Your task to perform on an android device: Nike Air Max 2020 shoes on Nike.com Image 0: 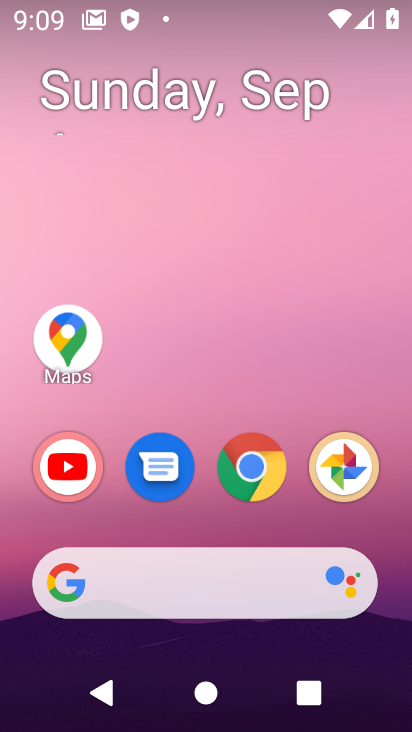
Step 0: click (243, 471)
Your task to perform on an android device: Nike Air Max 2020 shoes on Nike.com Image 1: 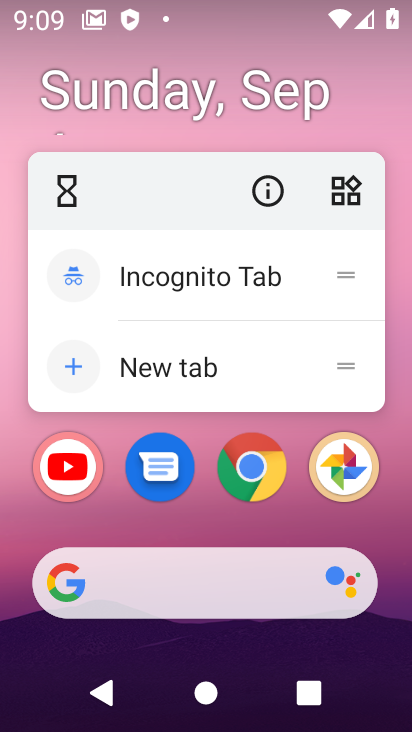
Step 1: click (260, 478)
Your task to perform on an android device: Nike Air Max 2020 shoes on Nike.com Image 2: 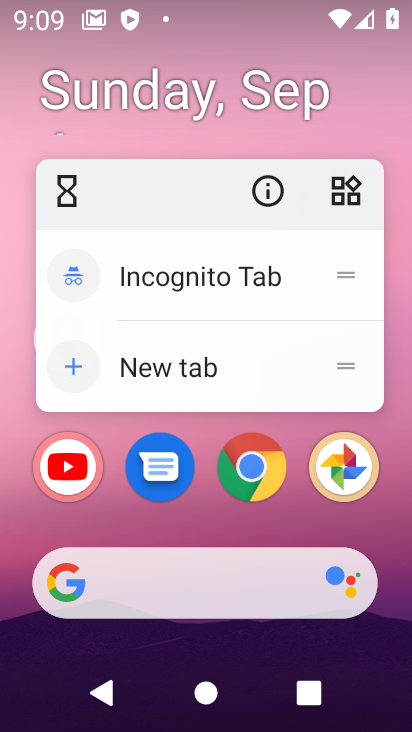
Step 2: click (260, 478)
Your task to perform on an android device: Nike Air Max 2020 shoes on Nike.com Image 3: 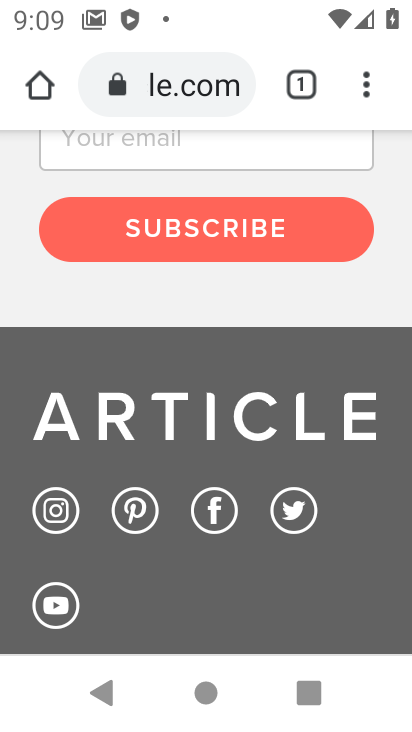
Step 3: click (207, 96)
Your task to perform on an android device: Nike Air Max 2020 shoes on Nike.com Image 4: 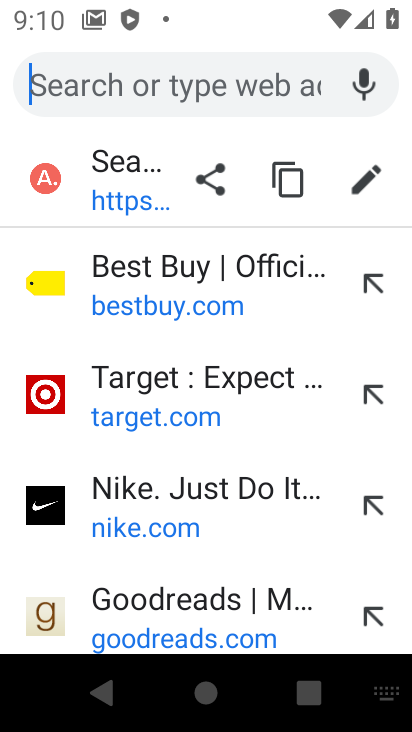
Step 4: type "nike.com"
Your task to perform on an android device: Nike Air Max 2020 shoes on Nike.com Image 5: 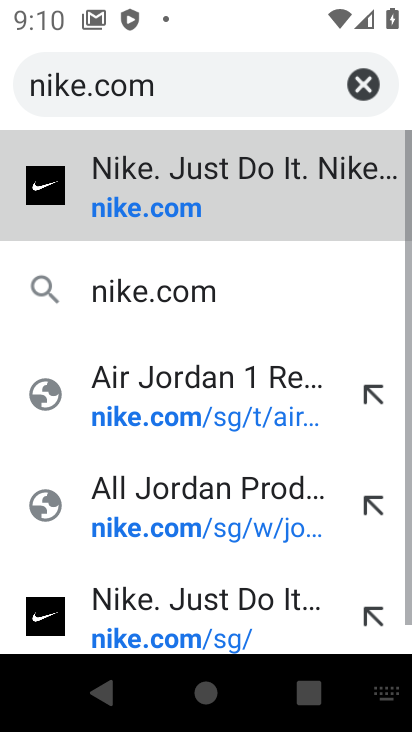
Step 5: type ""
Your task to perform on an android device: Nike Air Max 2020 shoes on Nike.com Image 6: 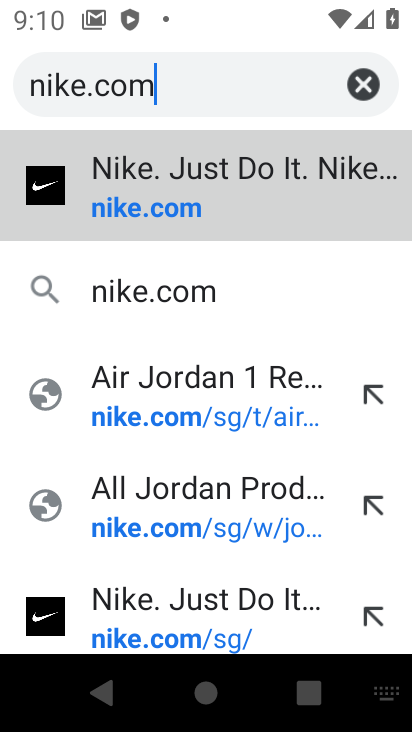
Step 6: click (255, 196)
Your task to perform on an android device: Nike Air Max 2020 shoes on Nike.com Image 7: 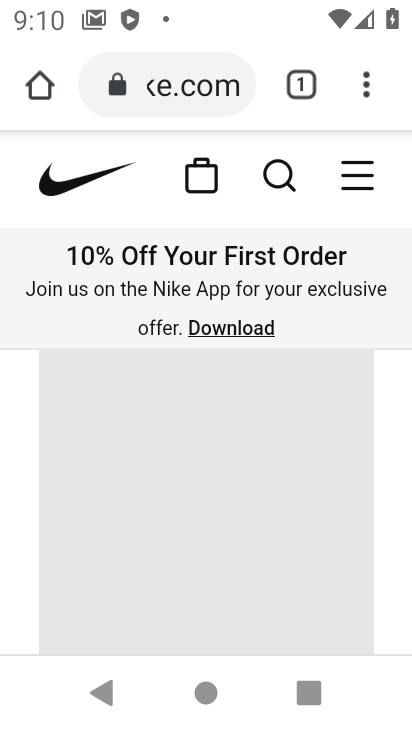
Step 7: click (265, 180)
Your task to perform on an android device: Nike Air Max 2020 shoes on Nike.com Image 8: 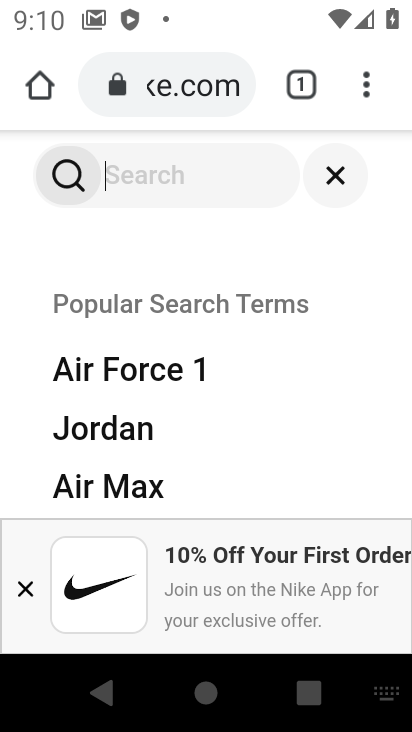
Step 8: click (154, 497)
Your task to perform on an android device: Nike Air Max 2020 shoes on Nike.com Image 9: 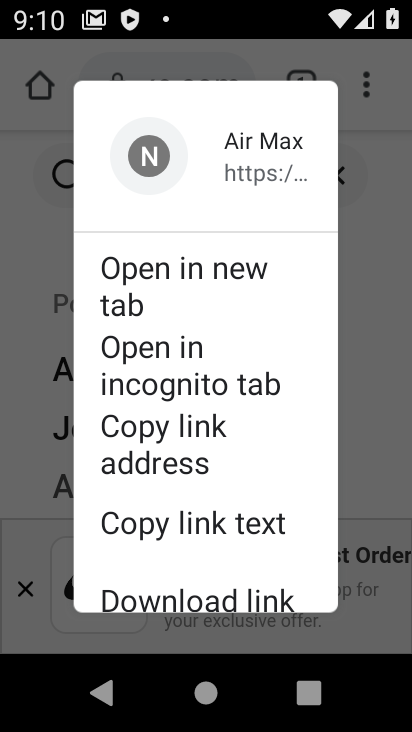
Step 9: click (391, 327)
Your task to perform on an android device: Nike Air Max 2020 shoes on Nike.com Image 10: 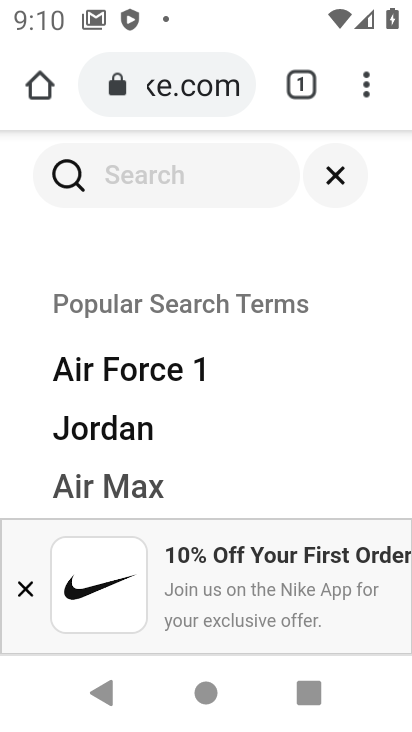
Step 10: click (20, 584)
Your task to perform on an android device: Nike Air Max 2020 shoes on Nike.com Image 11: 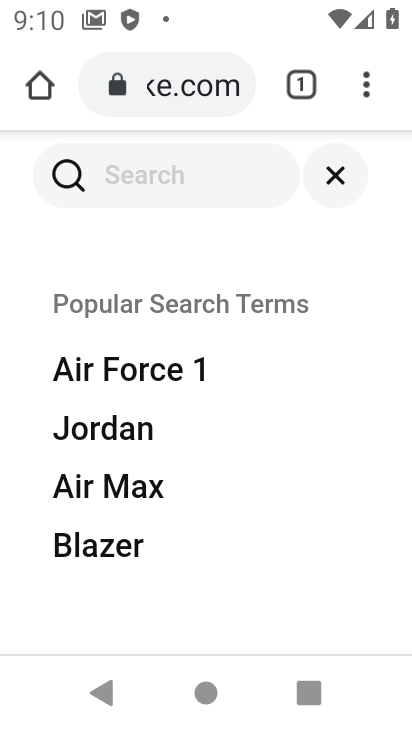
Step 11: drag from (323, 492) to (370, 175)
Your task to perform on an android device: Nike Air Max 2020 shoes on Nike.com Image 12: 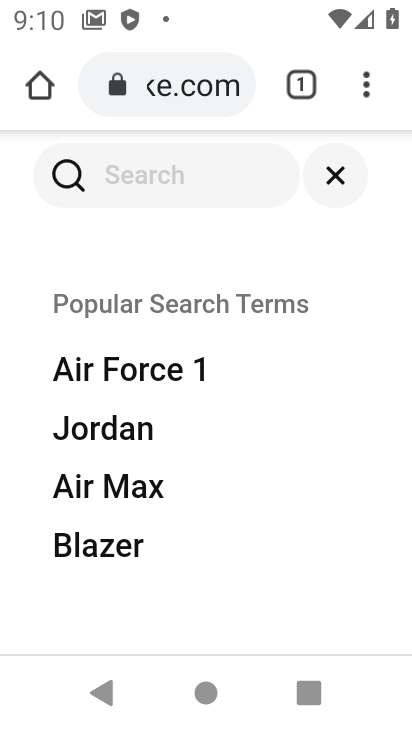
Step 12: drag from (332, 556) to (381, 227)
Your task to perform on an android device: Nike Air Max 2020 shoes on Nike.com Image 13: 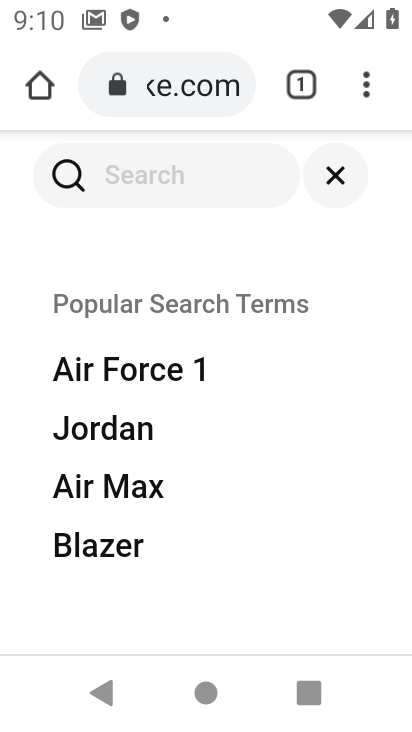
Step 13: click (121, 492)
Your task to perform on an android device: Nike Air Max 2020 shoes on Nike.com Image 14: 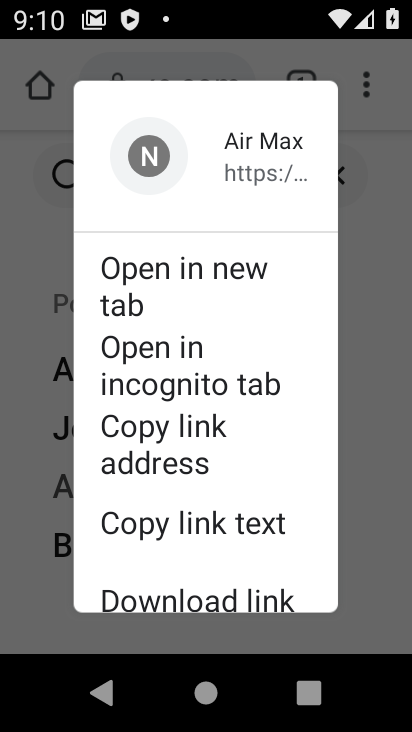
Step 14: click (393, 322)
Your task to perform on an android device: Nike Air Max 2020 shoes on Nike.com Image 15: 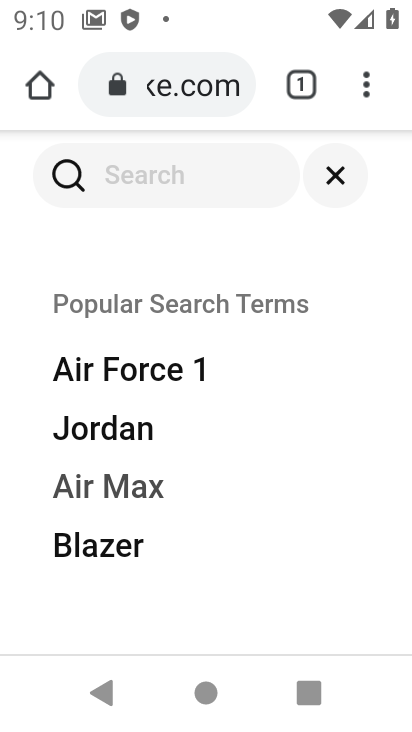
Step 15: click (395, 269)
Your task to perform on an android device: Nike Air Max 2020 shoes on Nike.com Image 16: 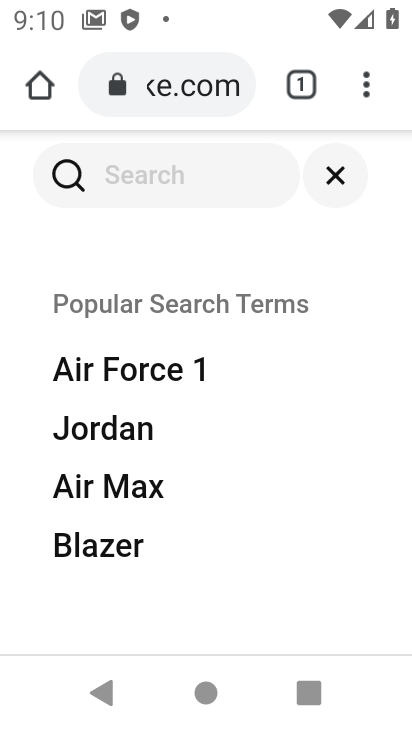
Step 16: click (127, 174)
Your task to perform on an android device: Nike Air Max 2020 shoes on Nike.com Image 17: 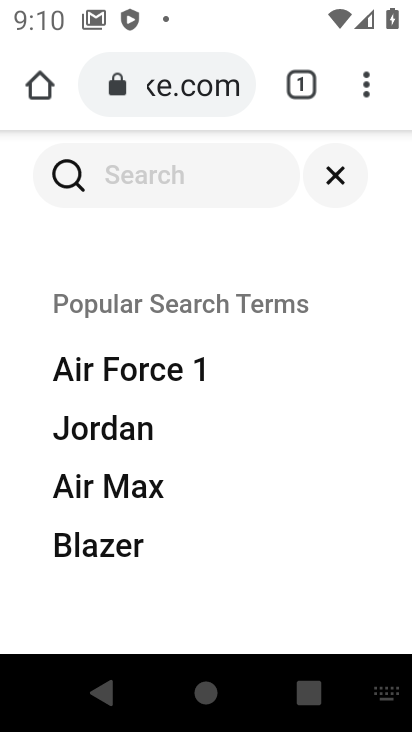
Step 17: type "air max 2020"
Your task to perform on an android device: Nike Air Max 2020 shoes on Nike.com Image 18: 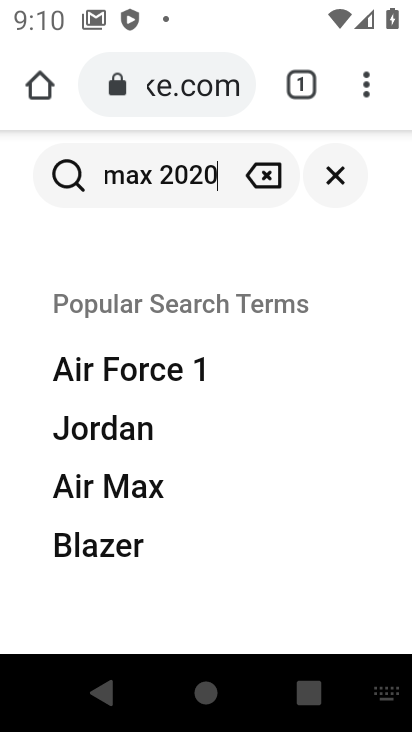
Step 18: type ""
Your task to perform on an android device: Nike Air Max 2020 shoes on Nike.com Image 19: 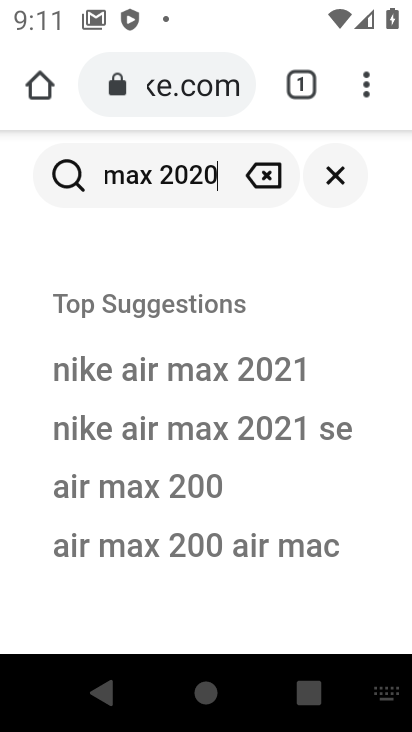
Step 19: click (134, 490)
Your task to perform on an android device: Nike Air Max 2020 shoes on Nike.com Image 20: 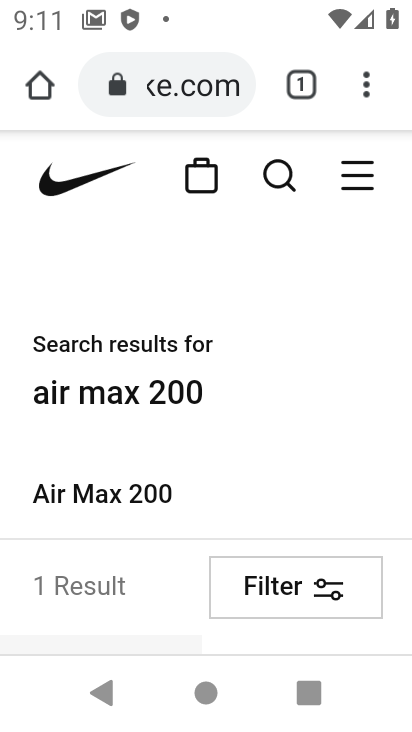
Step 20: drag from (346, 396) to (357, 221)
Your task to perform on an android device: Nike Air Max 2020 shoes on Nike.com Image 21: 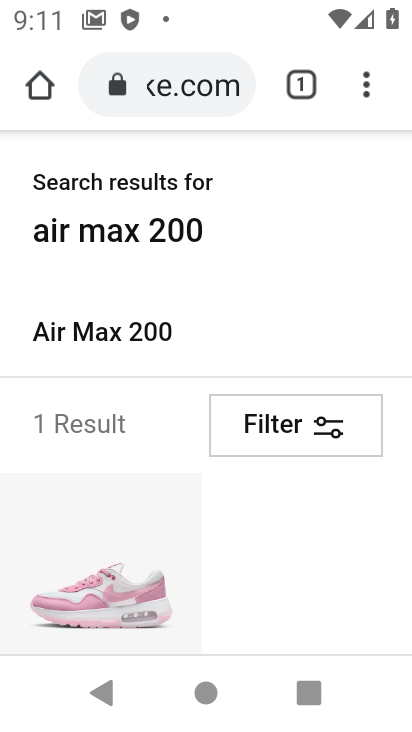
Step 21: drag from (334, 527) to (321, 142)
Your task to perform on an android device: Nike Air Max 2020 shoes on Nike.com Image 22: 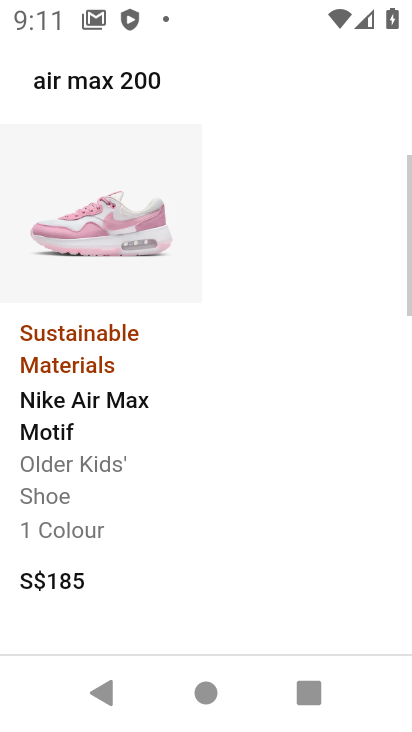
Step 22: drag from (236, 496) to (278, 178)
Your task to perform on an android device: Nike Air Max 2020 shoes on Nike.com Image 23: 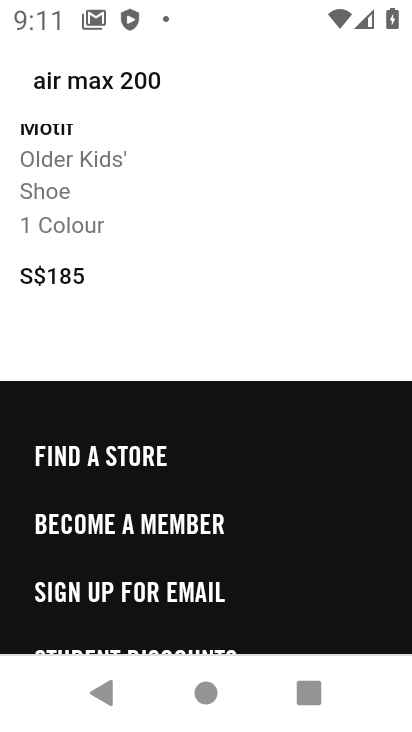
Step 23: click (228, 82)
Your task to perform on an android device: Nike Air Max 2020 shoes on Nike.com Image 24: 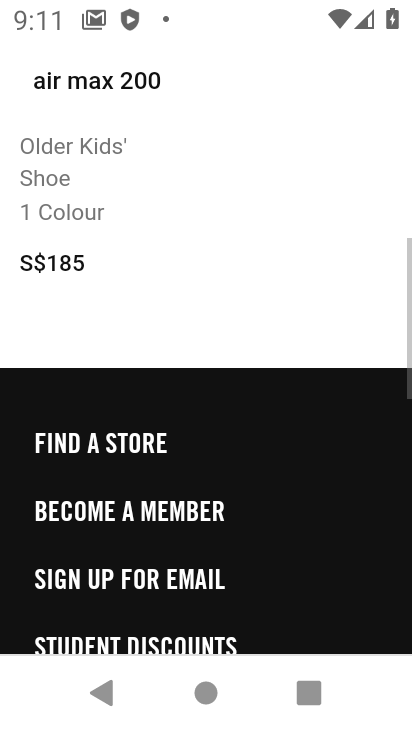
Step 24: drag from (236, 276) to (303, 64)
Your task to perform on an android device: Nike Air Max 2020 shoes on Nike.com Image 25: 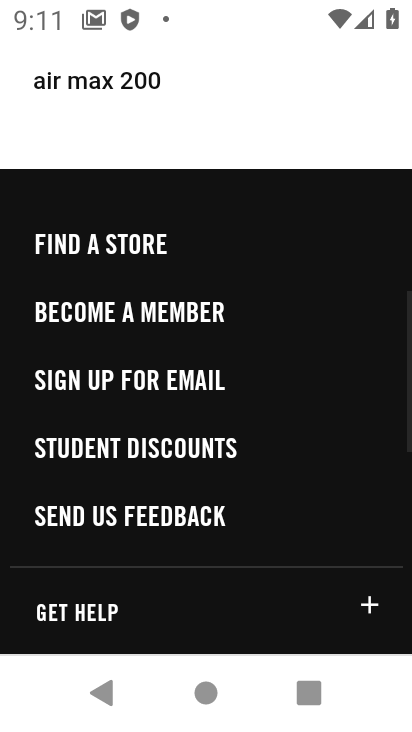
Step 25: drag from (336, 486) to (371, 158)
Your task to perform on an android device: Nike Air Max 2020 shoes on Nike.com Image 26: 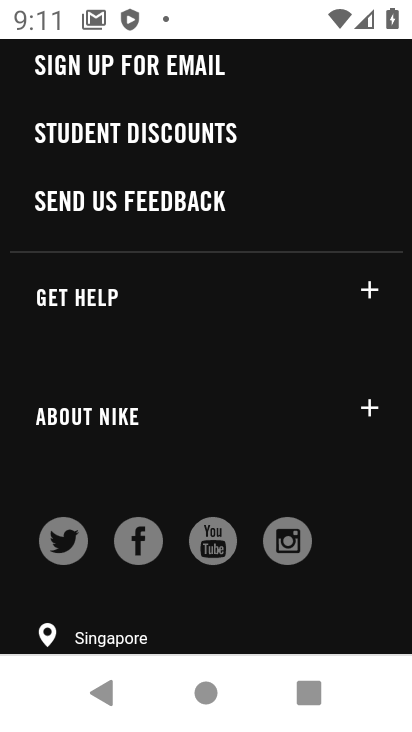
Step 26: drag from (353, 546) to (342, 172)
Your task to perform on an android device: Nike Air Max 2020 shoes on Nike.com Image 27: 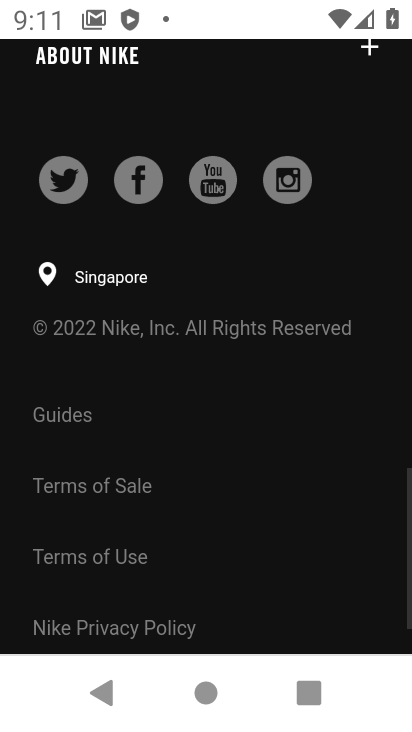
Step 27: drag from (336, 471) to (373, 213)
Your task to perform on an android device: Nike Air Max 2020 shoes on Nike.com Image 28: 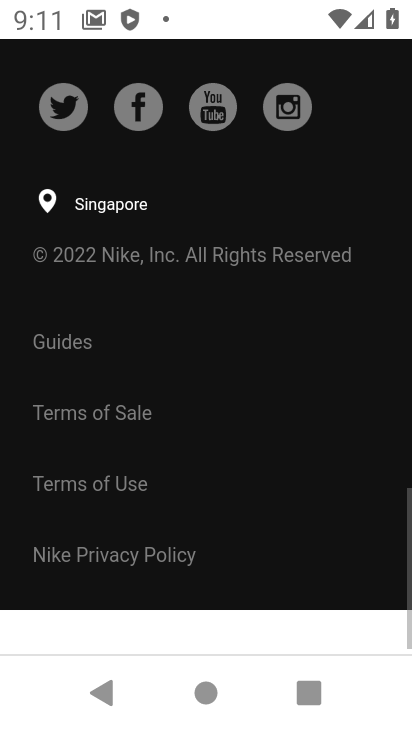
Step 28: drag from (375, 187) to (388, 612)
Your task to perform on an android device: Nike Air Max 2020 shoes on Nike.com Image 29: 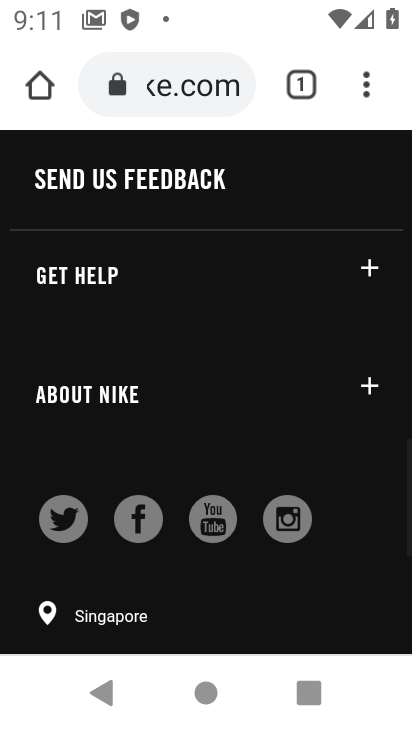
Step 29: drag from (358, 200) to (396, 646)
Your task to perform on an android device: Nike Air Max 2020 shoes on Nike.com Image 30: 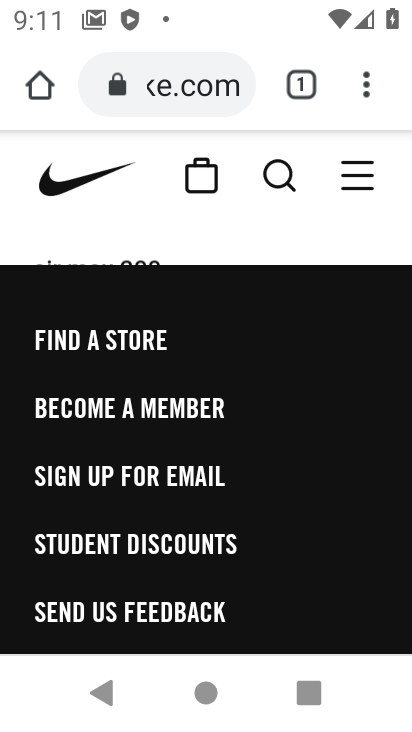
Step 30: drag from (308, 291) to (339, 686)
Your task to perform on an android device: Nike Air Max 2020 shoes on Nike.com Image 31: 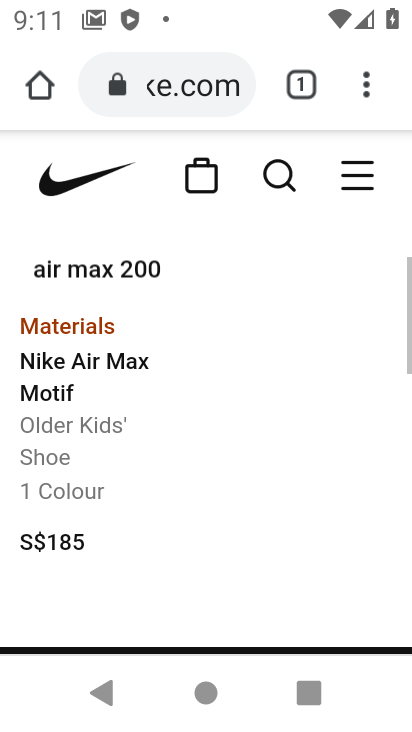
Step 31: drag from (285, 343) to (294, 489)
Your task to perform on an android device: Nike Air Max 2020 shoes on Nike.com Image 32: 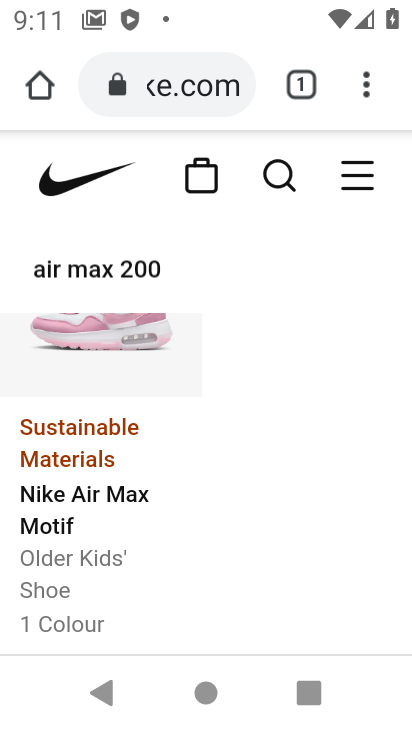
Step 32: click (93, 496)
Your task to perform on an android device: Nike Air Max 2020 shoes on Nike.com Image 33: 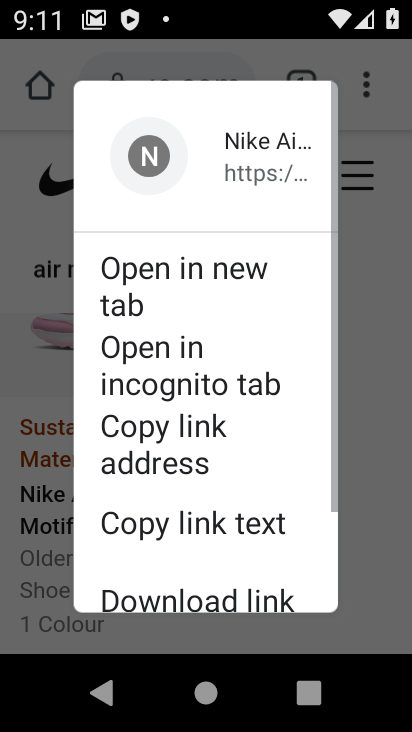
Step 33: click (394, 354)
Your task to perform on an android device: Nike Air Max 2020 shoes on Nike.com Image 34: 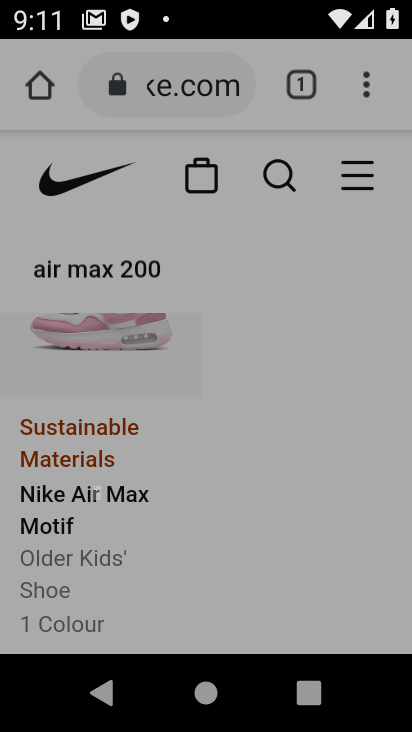
Step 34: drag from (366, 312) to (355, 542)
Your task to perform on an android device: Nike Air Max 2020 shoes on Nike.com Image 35: 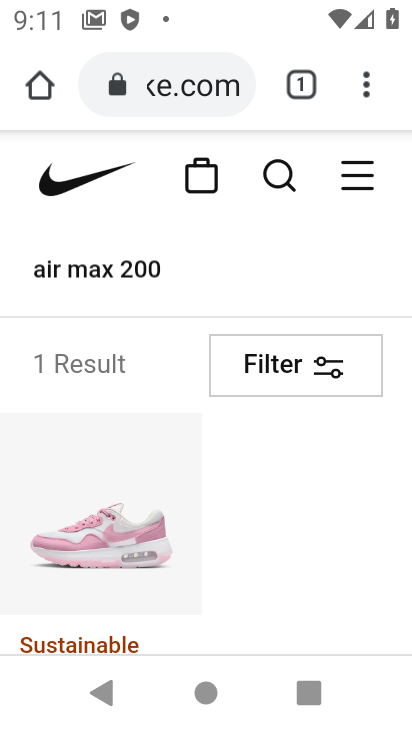
Step 35: click (101, 516)
Your task to perform on an android device: Nike Air Max 2020 shoes on Nike.com Image 36: 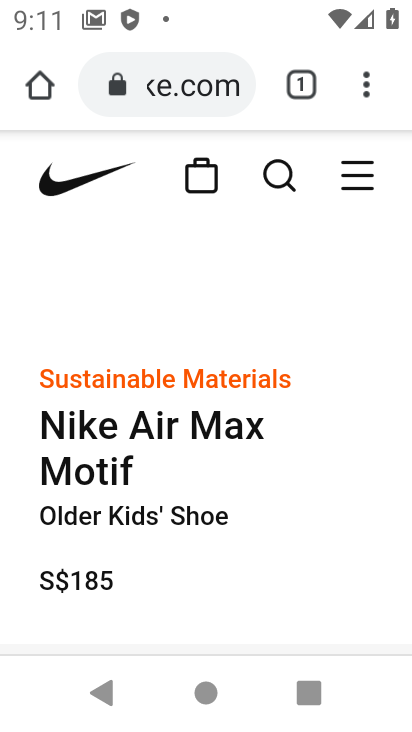
Step 36: task complete